Your task to perform on an android device: toggle notifications settings in the gmail app Image 0: 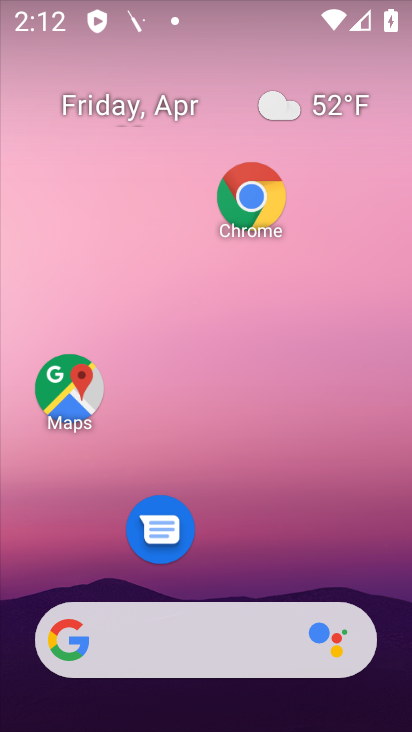
Step 0: drag from (205, 569) to (208, 325)
Your task to perform on an android device: toggle notifications settings in the gmail app Image 1: 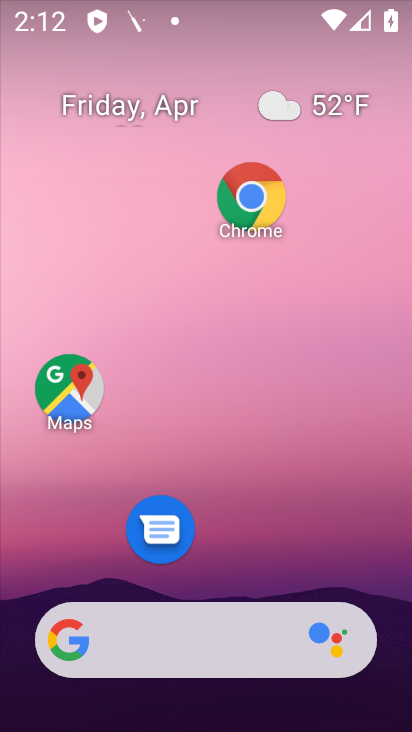
Step 1: drag from (231, 65) to (238, 10)
Your task to perform on an android device: toggle notifications settings in the gmail app Image 2: 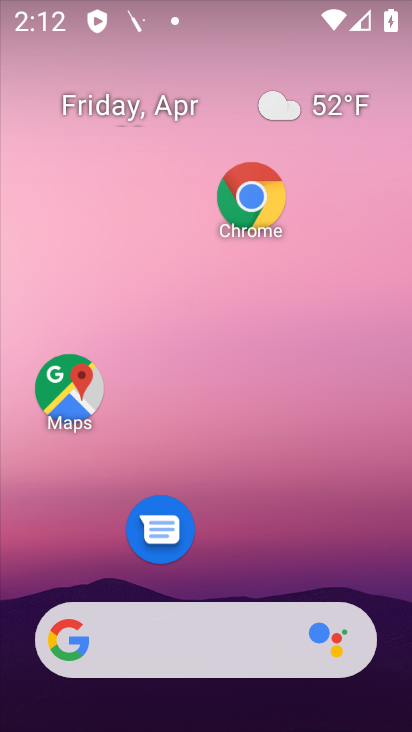
Step 2: drag from (223, 571) to (227, 129)
Your task to perform on an android device: toggle notifications settings in the gmail app Image 3: 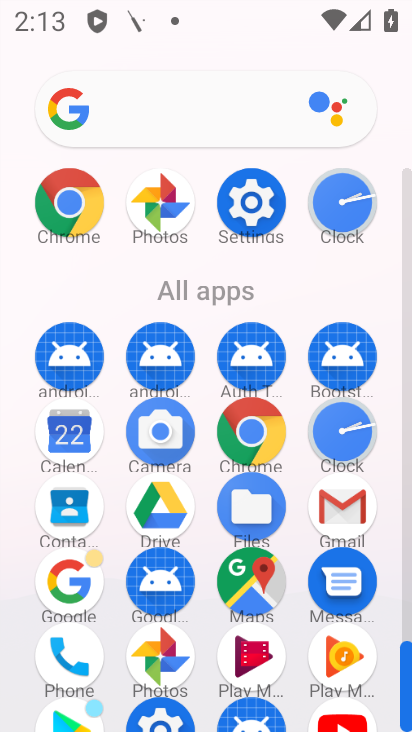
Step 3: click (320, 494)
Your task to perform on an android device: toggle notifications settings in the gmail app Image 4: 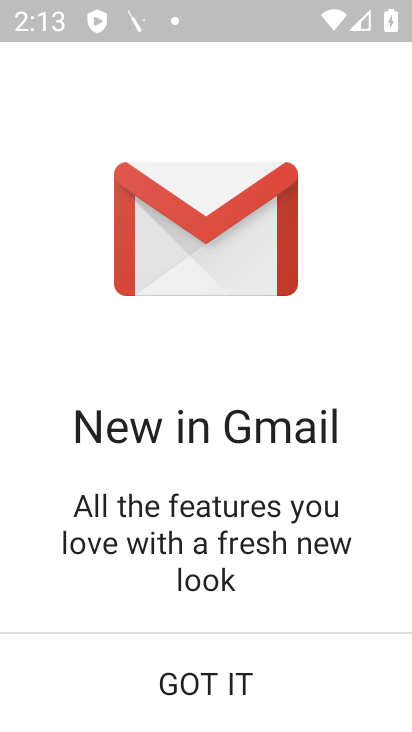
Step 4: click (239, 678)
Your task to perform on an android device: toggle notifications settings in the gmail app Image 5: 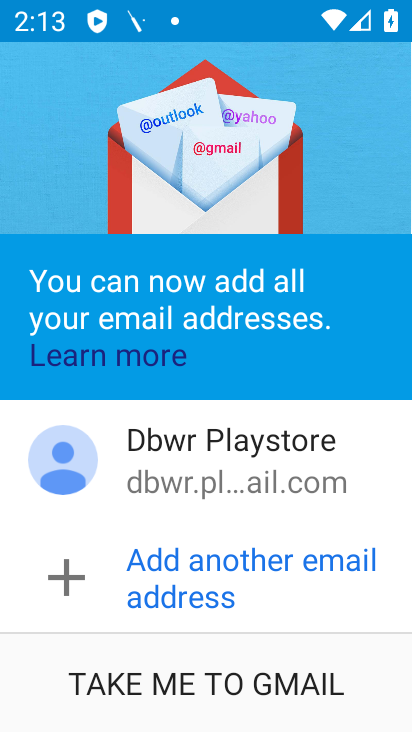
Step 5: click (244, 679)
Your task to perform on an android device: toggle notifications settings in the gmail app Image 6: 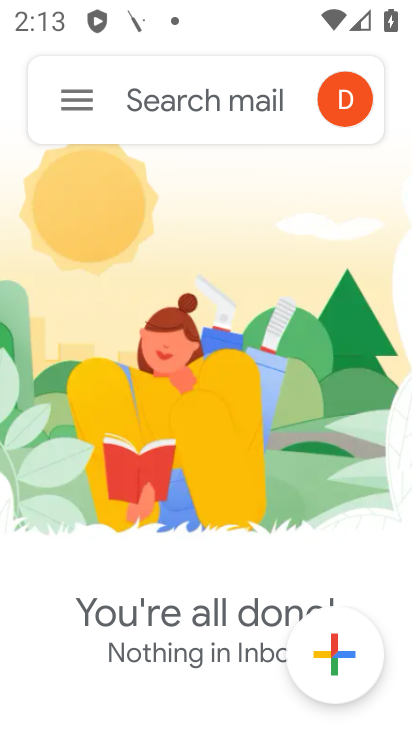
Step 6: click (73, 96)
Your task to perform on an android device: toggle notifications settings in the gmail app Image 7: 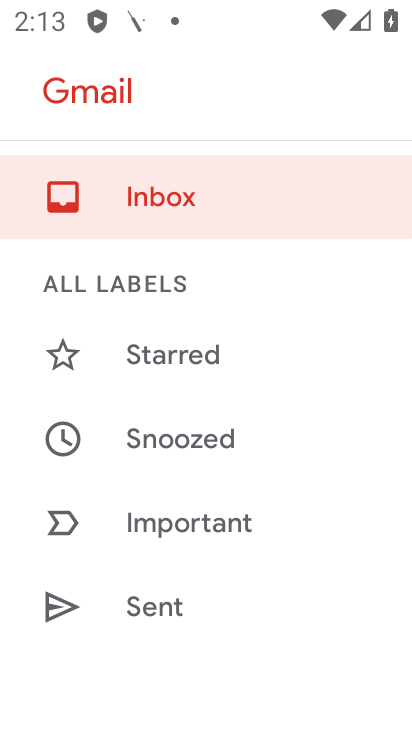
Step 7: drag from (206, 573) to (247, 240)
Your task to perform on an android device: toggle notifications settings in the gmail app Image 8: 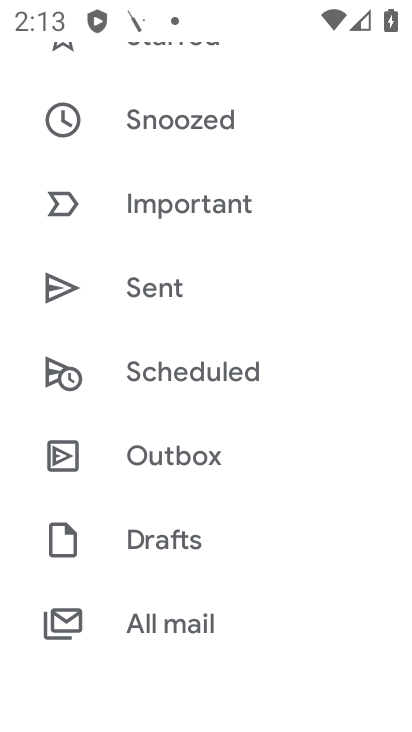
Step 8: drag from (245, 504) to (274, 239)
Your task to perform on an android device: toggle notifications settings in the gmail app Image 9: 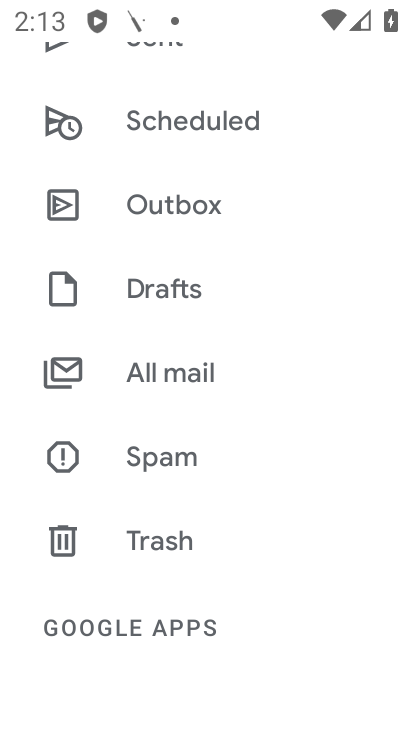
Step 9: drag from (219, 525) to (235, 270)
Your task to perform on an android device: toggle notifications settings in the gmail app Image 10: 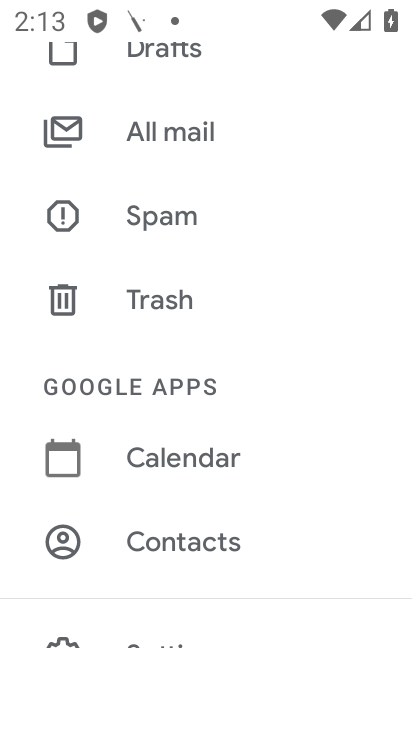
Step 10: drag from (232, 500) to (248, 235)
Your task to perform on an android device: toggle notifications settings in the gmail app Image 11: 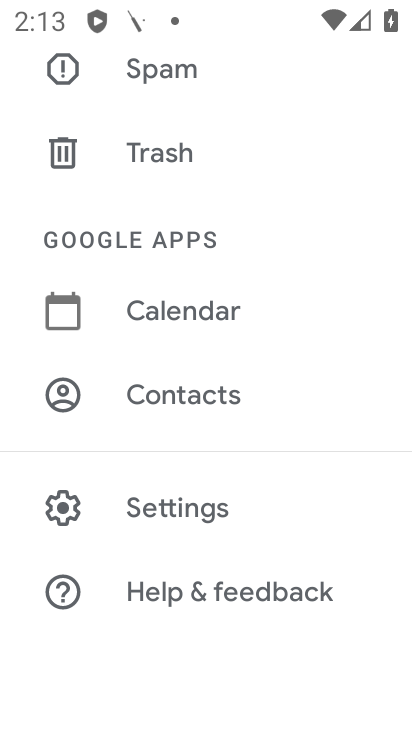
Step 11: click (173, 506)
Your task to perform on an android device: toggle notifications settings in the gmail app Image 12: 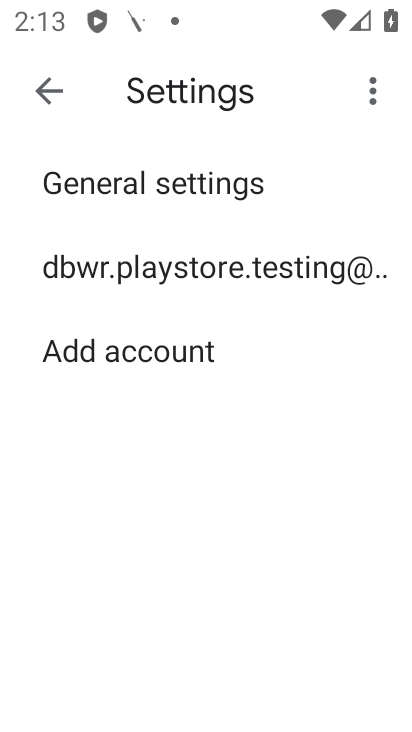
Step 12: click (208, 275)
Your task to perform on an android device: toggle notifications settings in the gmail app Image 13: 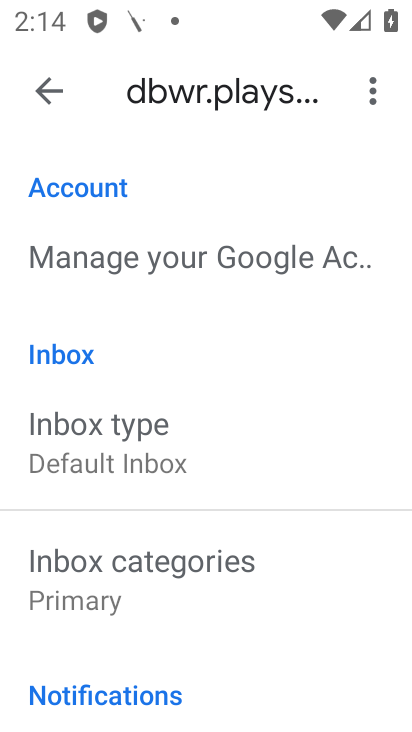
Step 13: drag from (246, 655) to (259, 366)
Your task to perform on an android device: toggle notifications settings in the gmail app Image 14: 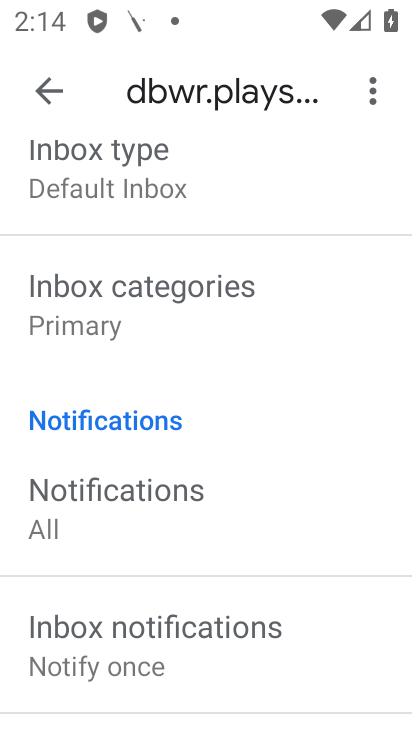
Step 14: drag from (235, 586) to (236, 398)
Your task to perform on an android device: toggle notifications settings in the gmail app Image 15: 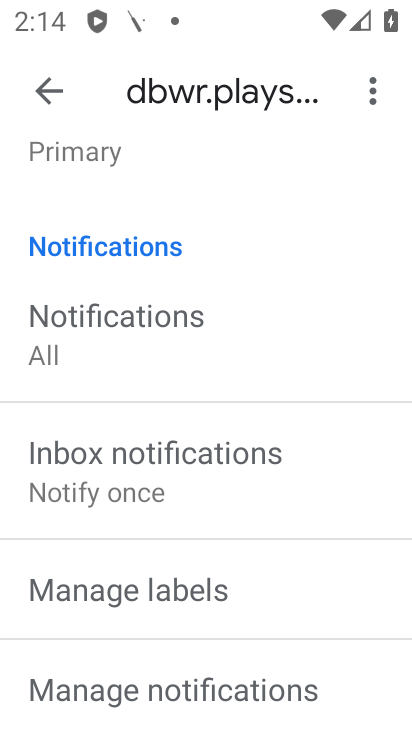
Step 15: drag from (216, 557) to (243, 358)
Your task to perform on an android device: toggle notifications settings in the gmail app Image 16: 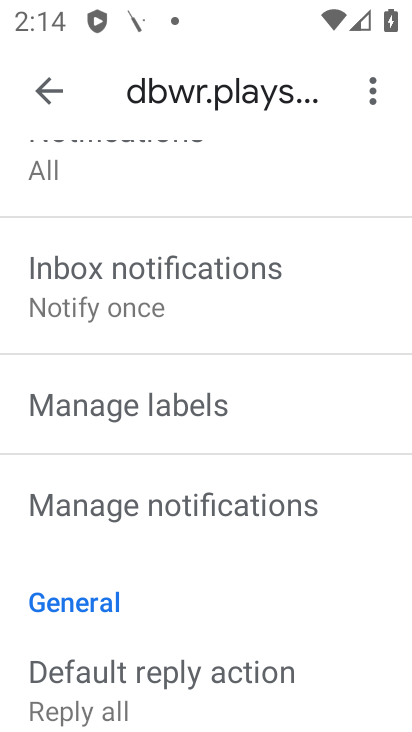
Step 16: click (219, 509)
Your task to perform on an android device: toggle notifications settings in the gmail app Image 17: 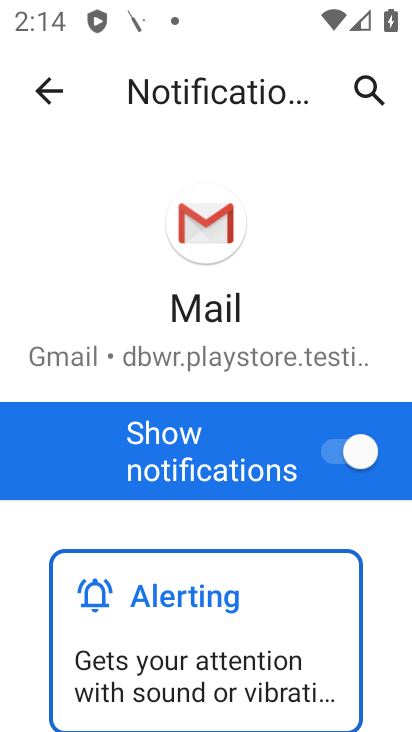
Step 17: click (334, 461)
Your task to perform on an android device: toggle notifications settings in the gmail app Image 18: 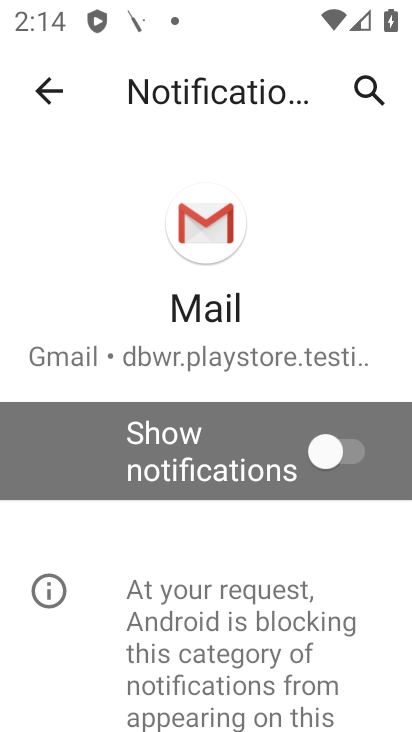
Step 18: task complete